Your task to perform on an android device: Add lenovo thinkpad to the cart on costco.com, then select checkout. Image 0: 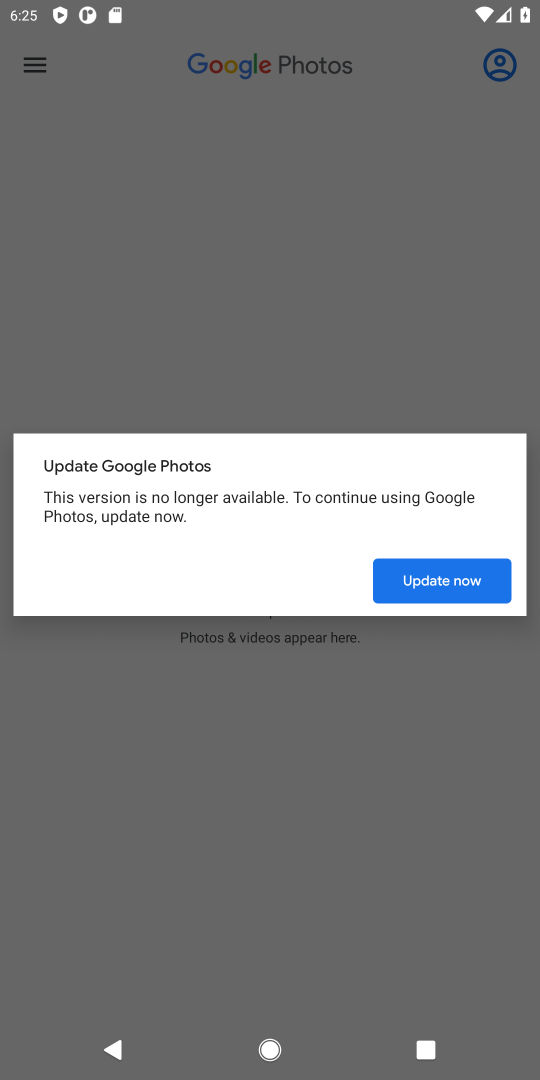
Step 0: press home button
Your task to perform on an android device: Add lenovo thinkpad to the cart on costco.com, then select checkout. Image 1: 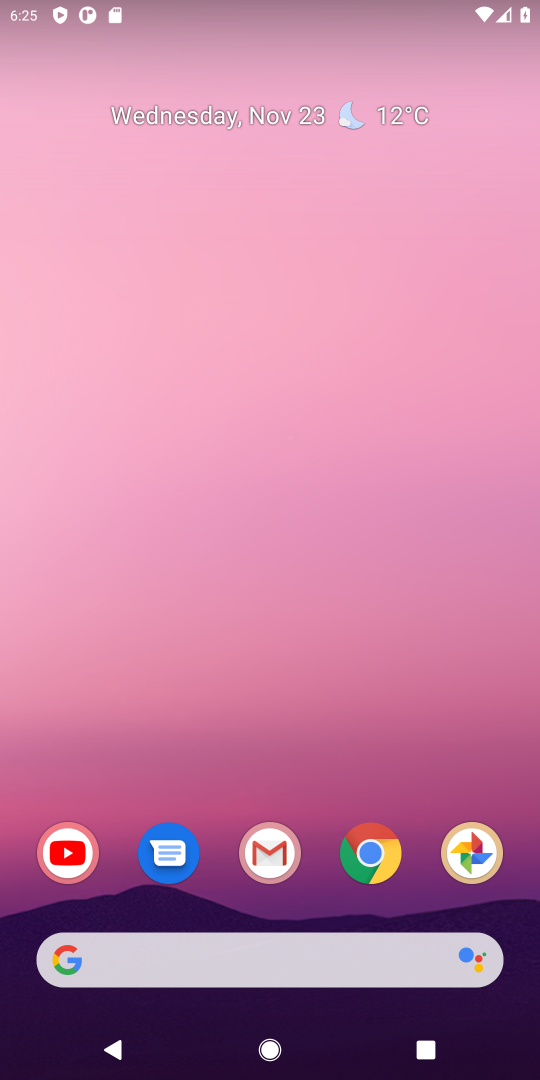
Step 1: click (372, 850)
Your task to perform on an android device: Add lenovo thinkpad to the cart on costco.com, then select checkout. Image 2: 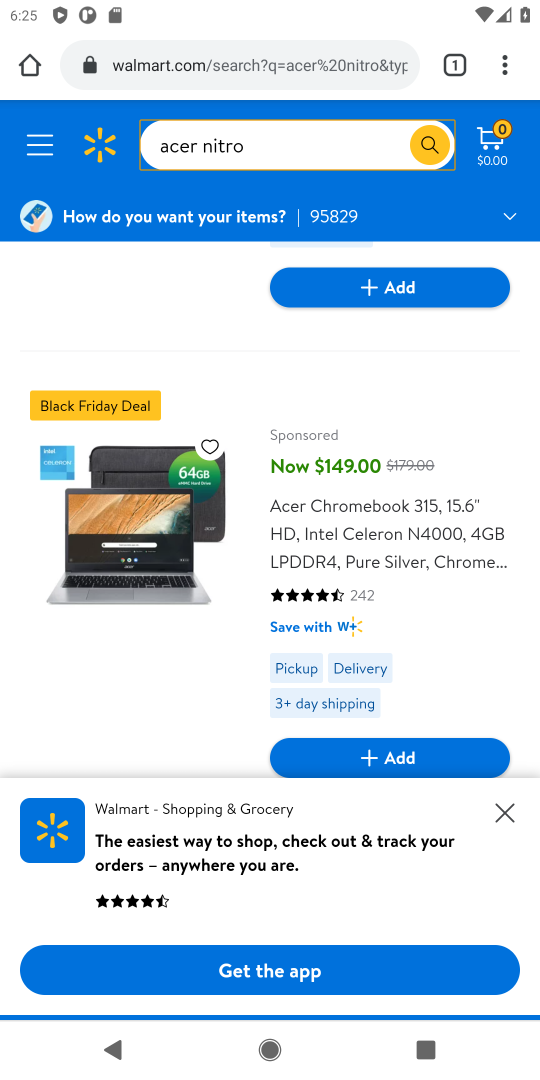
Step 2: click (219, 67)
Your task to perform on an android device: Add lenovo thinkpad to the cart on costco.com, then select checkout. Image 3: 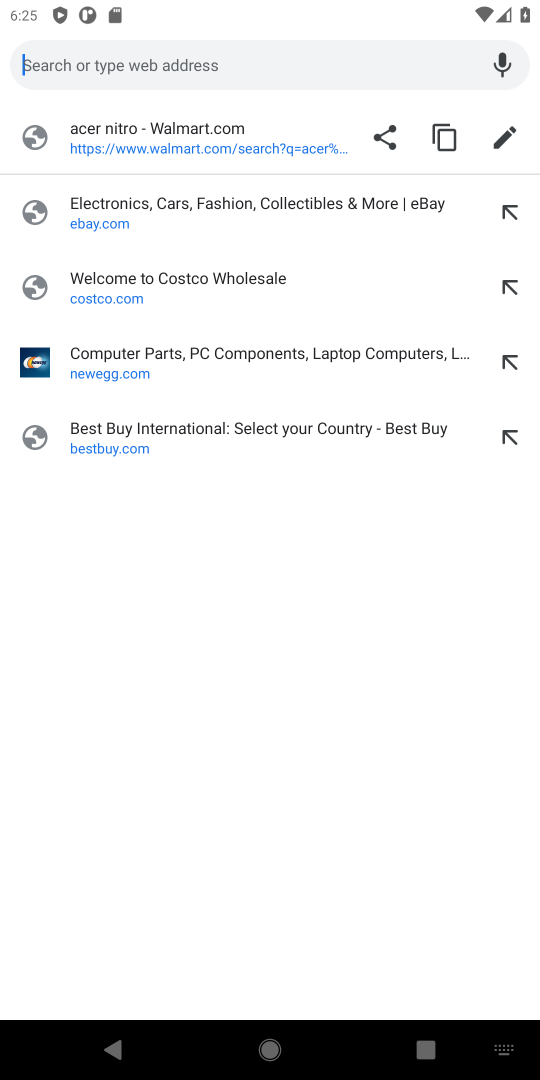
Step 3: click (91, 304)
Your task to perform on an android device: Add lenovo thinkpad to the cart on costco.com, then select checkout. Image 4: 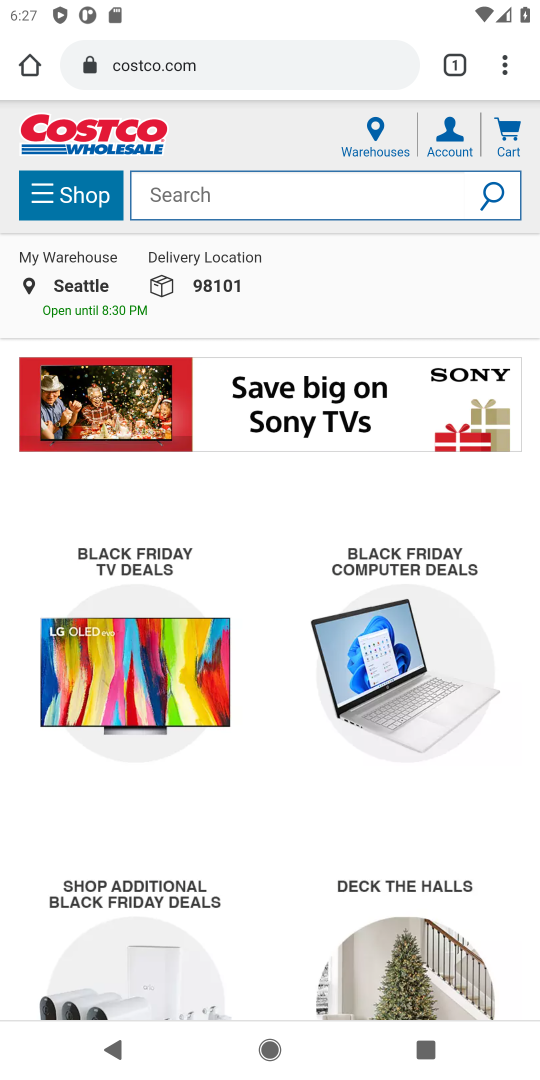
Step 4: click (174, 187)
Your task to perform on an android device: Add lenovo thinkpad to the cart on costco.com, then select checkout. Image 5: 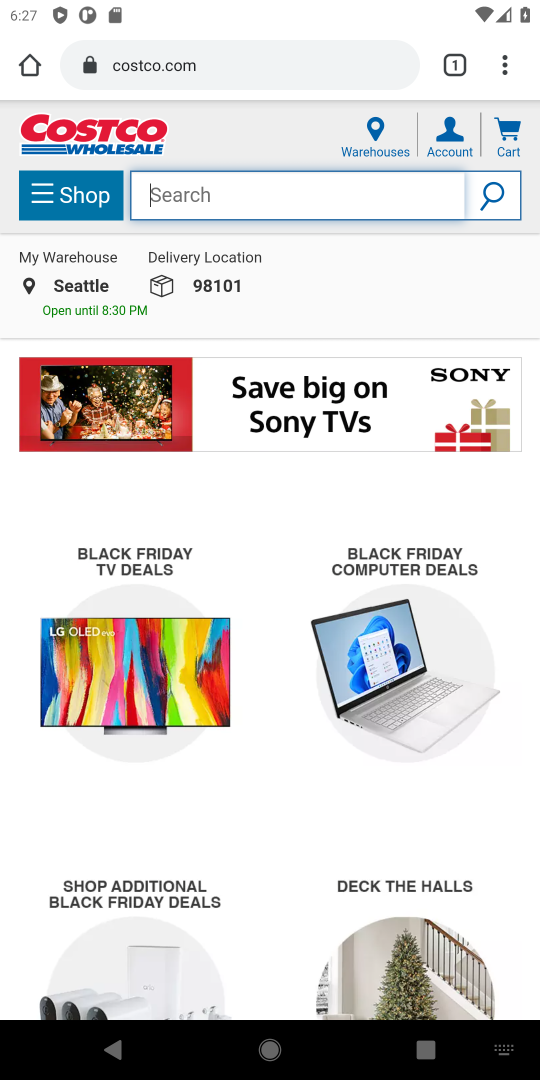
Step 5: type " lenovo thinkpad"
Your task to perform on an android device: Add lenovo thinkpad to the cart on costco.com, then select checkout. Image 6: 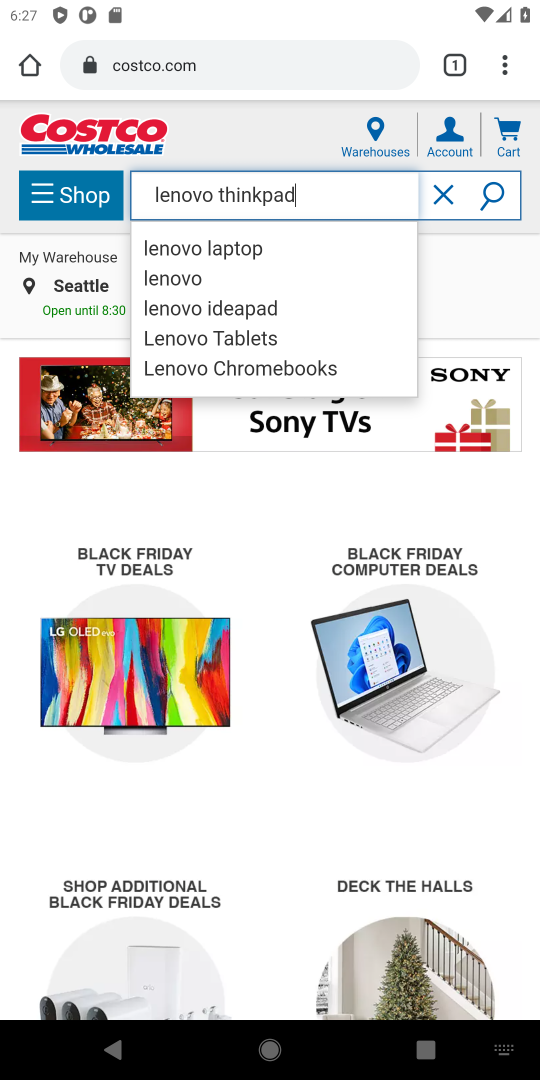
Step 6: click (486, 196)
Your task to perform on an android device: Add lenovo thinkpad to the cart on costco.com, then select checkout. Image 7: 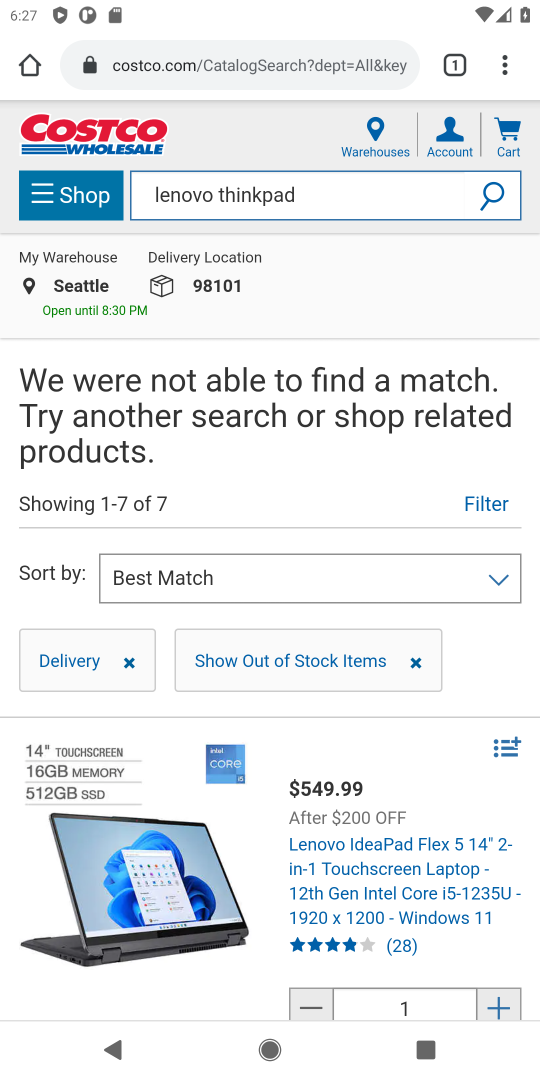
Step 7: task complete